Your task to perform on an android device: install app "Reddit" Image 0: 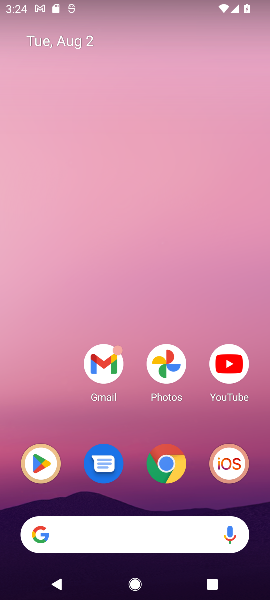
Step 0: click (45, 463)
Your task to perform on an android device: install app "Reddit" Image 1: 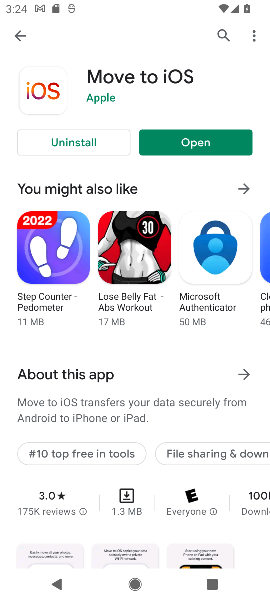
Step 1: click (226, 31)
Your task to perform on an android device: install app "Reddit" Image 2: 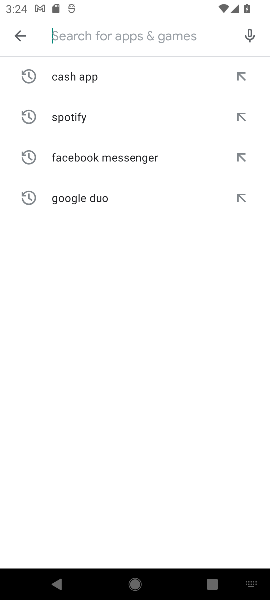
Step 2: type "Reddit"
Your task to perform on an android device: install app "Reddit" Image 3: 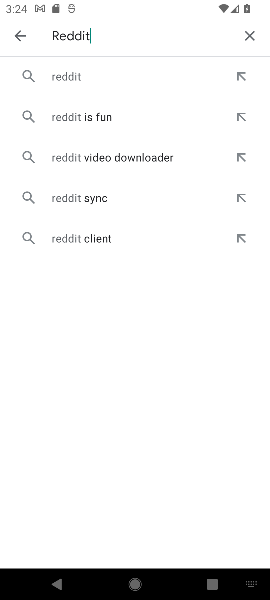
Step 3: click (58, 78)
Your task to perform on an android device: install app "Reddit" Image 4: 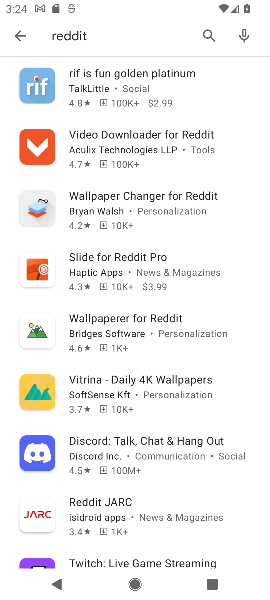
Step 4: task complete